Your task to perform on an android device: turn vacation reply on in the gmail app Image 0: 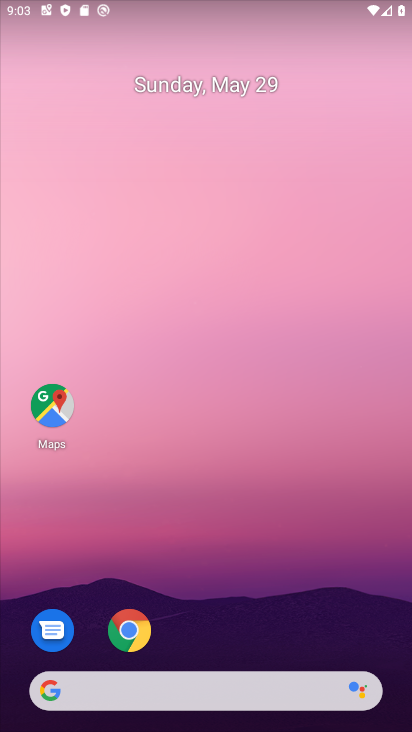
Step 0: drag from (348, 633) to (304, 136)
Your task to perform on an android device: turn vacation reply on in the gmail app Image 1: 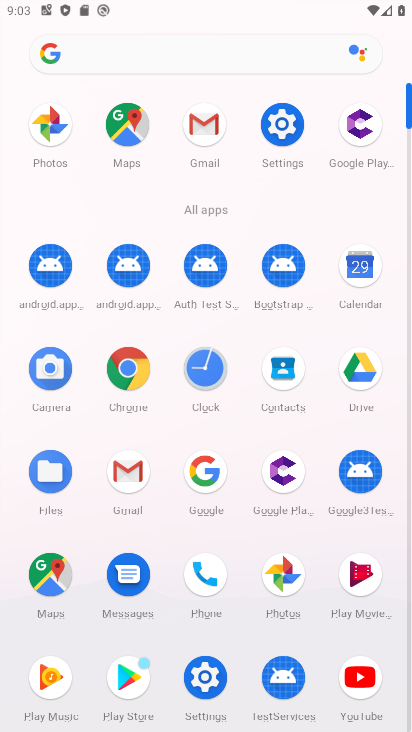
Step 1: click (126, 476)
Your task to perform on an android device: turn vacation reply on in the gmail app Image 2: 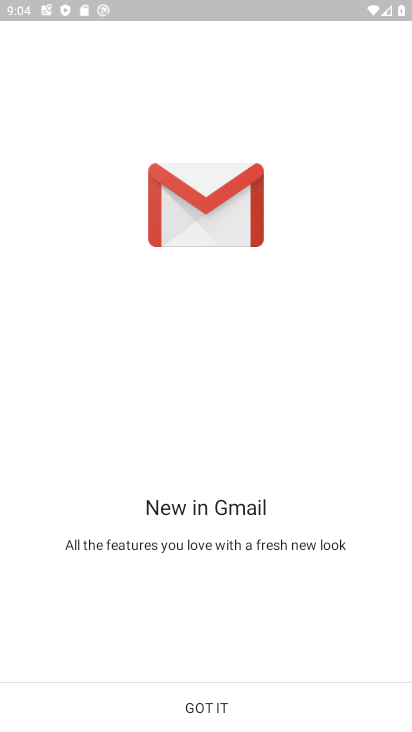
Step 2: click (200, 713)
Your task to perform on an android device: turn vacation reply on in the gmail app Image 3: 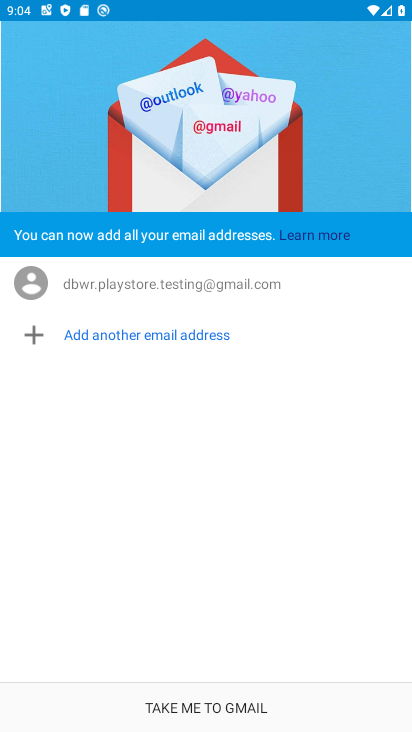
Step 3: click (200, 713)
Your task to perform on an android device: turn vacation reply on in the gmail app Image 4: 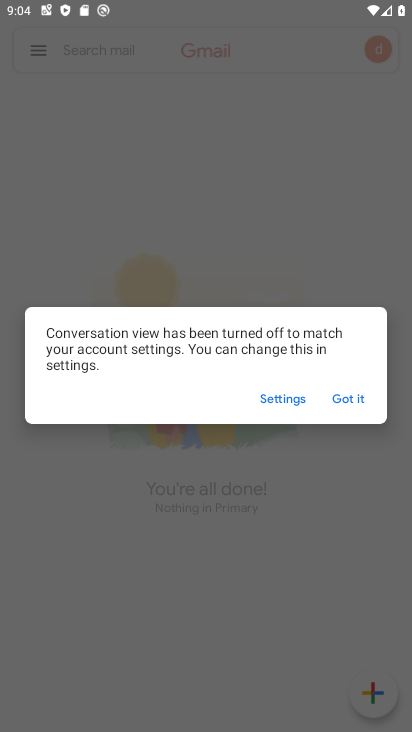
Step 4: click (345, 397)
Your task to perform on an android device: turn vacation reply on in the gmail app Image 5: 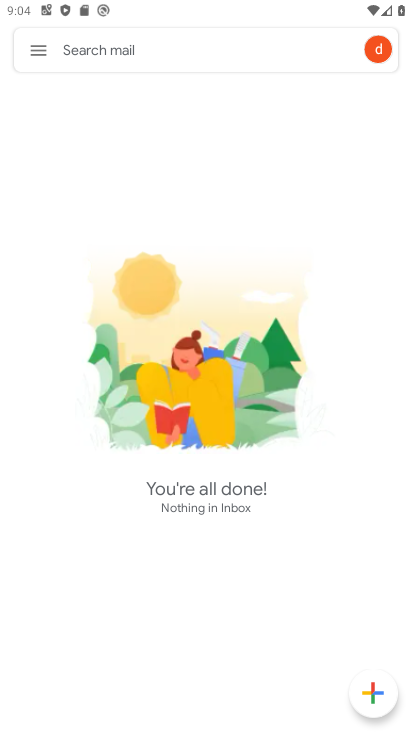
Step 5: click (32, 60)
Your task to perform on an android device: turn vacation reply on in the gmail app Image 6: 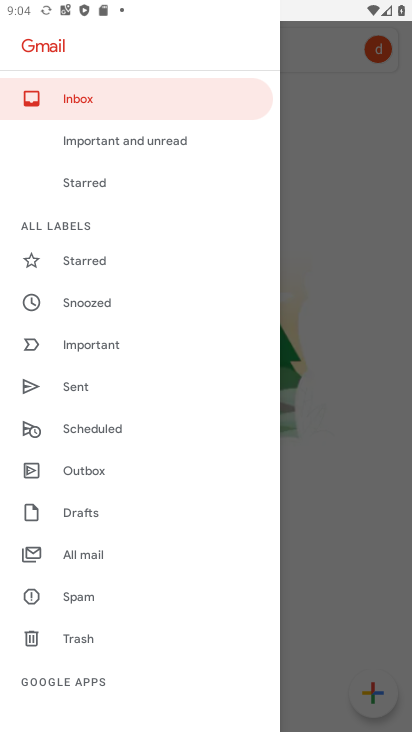
Step 6: drag from (146, 660) to (140, 410)
Your task to perform on an android device: turn vacation reply on in the gmail app Image 7: 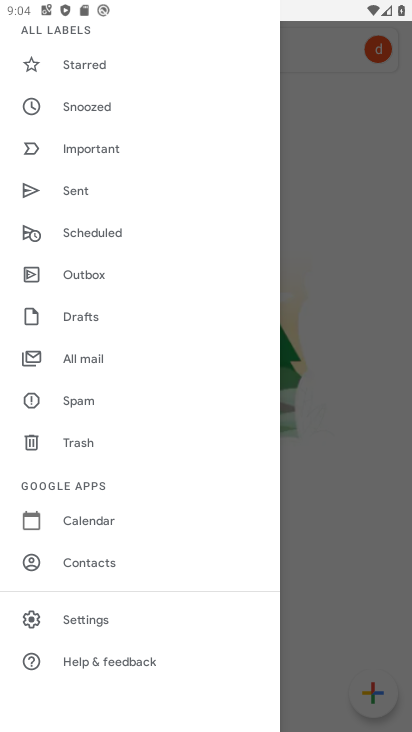
Step 7: click (120, 619)
Your task to perform on an android device: turn vacation reply on in the gmail app Image 8: 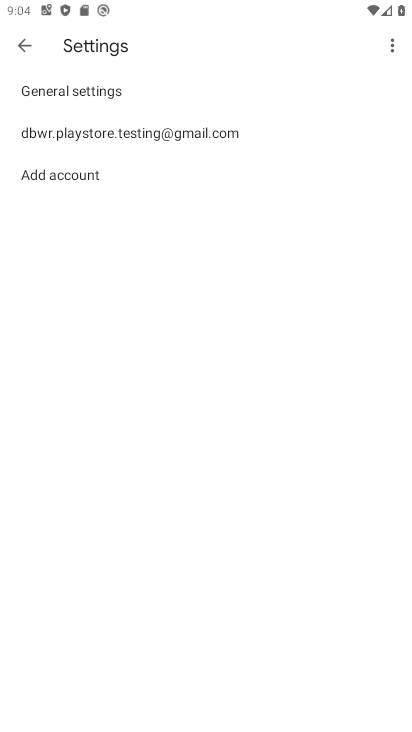
Step 8: click (140, 136)
Your task to perform on an android device: turn vacation reply on in the gmail app Image 9: 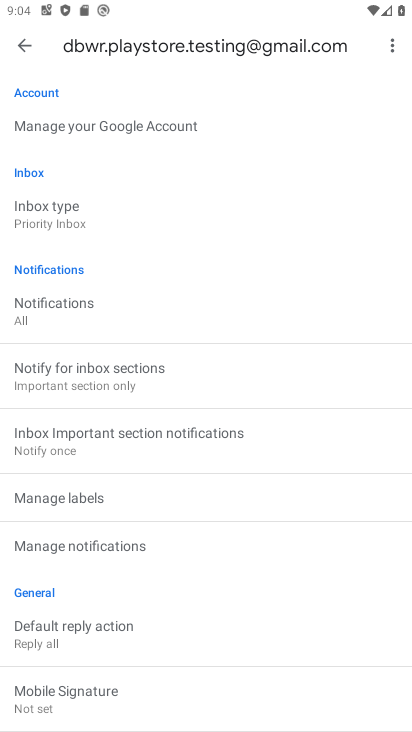
Step 9: drag from (161, 640) to (166, 275)
Your task to perform on an android device: turn vacation reply on in the gmail app Image 10: 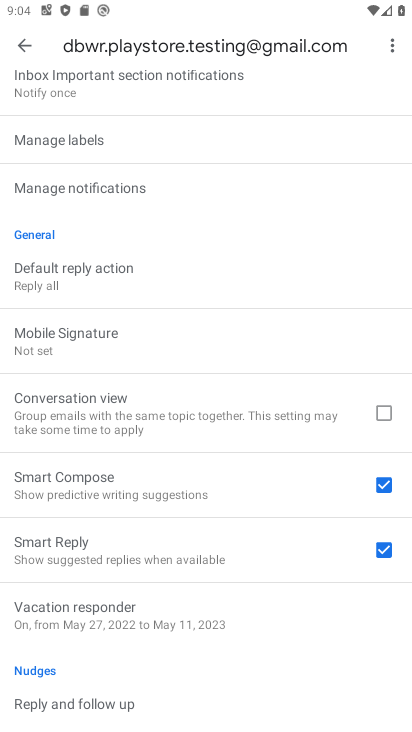
Step 10: click (194, 619)
Your task to perform on an android device: turn vacation reply on in the gmail app Image 11: 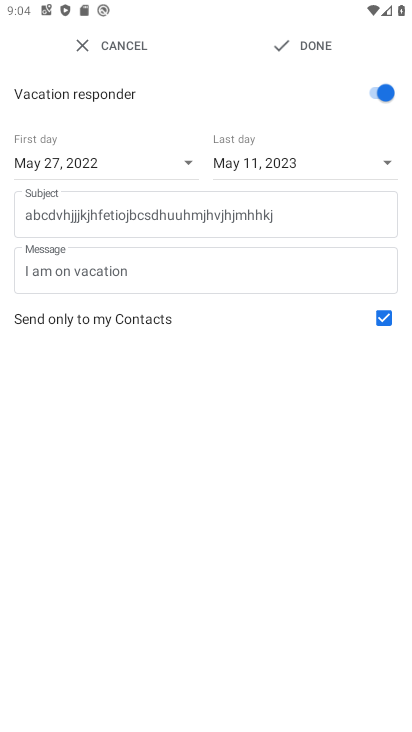
Step 11: task complete